Your task to perform on an android device: Check my gmail Image 0: 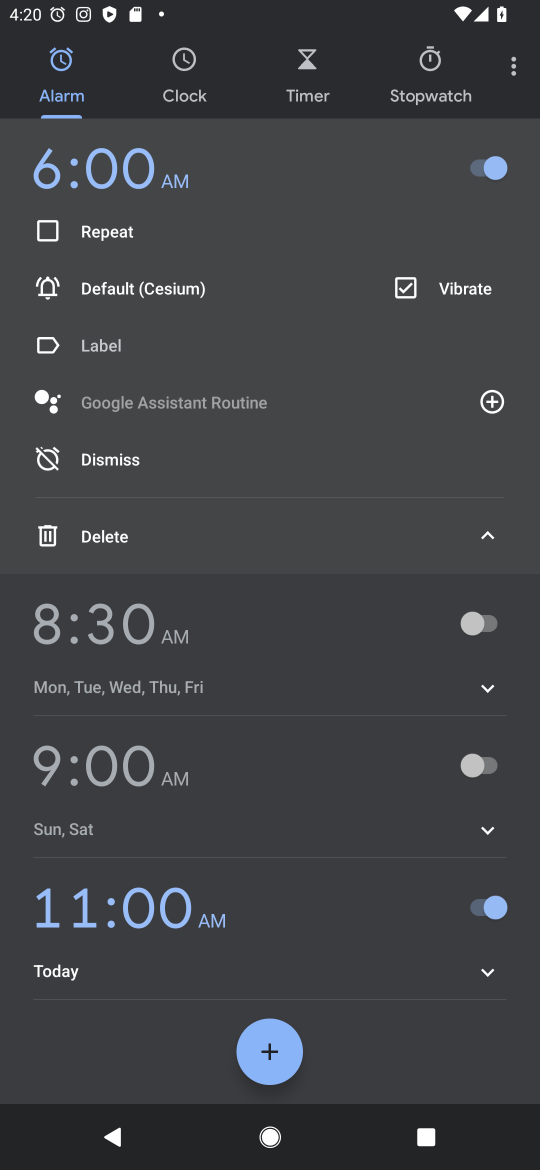
Step 0: press home button
Your task to perform on an android device: Check my gmail Image 1: 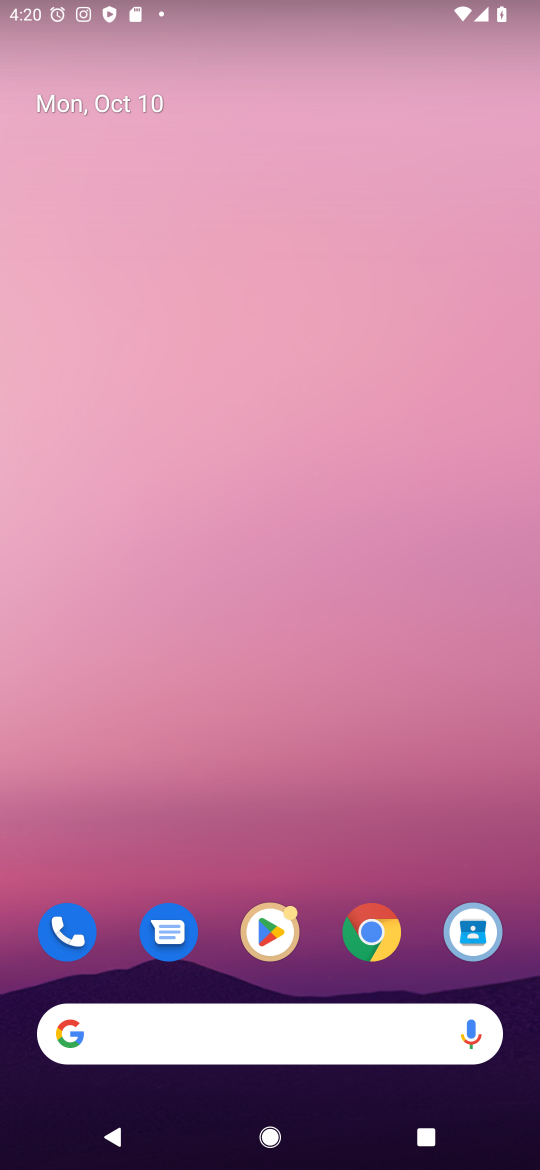
Step 1: drag from (489, 783) to (482, 101)
Your task to perform on an android device: Check my gmail Image 2: 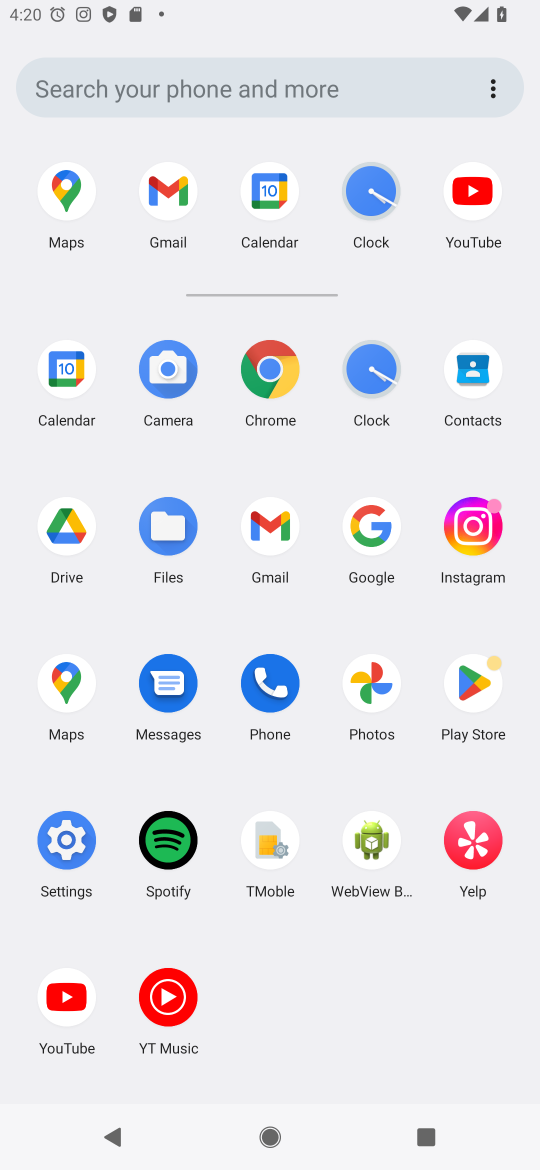
Step 2: click (272, 532)
Your task to perform on an android device: Check my gmail Image 3: 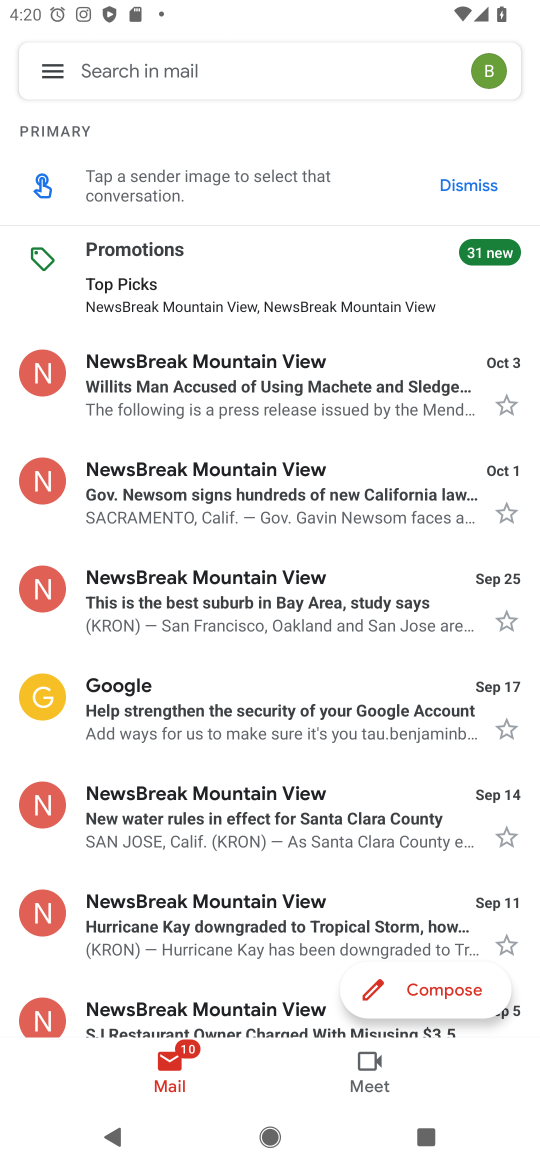
Step 3: task complete